Your task to perform on an android device: find photos in the google photos app Image 0: 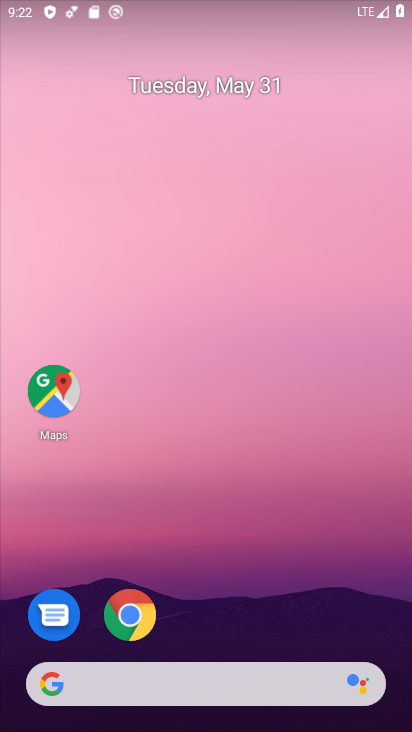
Step 0: drag from (356, 567) to (399, 104)
Your task to perform on an android device: find photos in the google photos app Image 1: 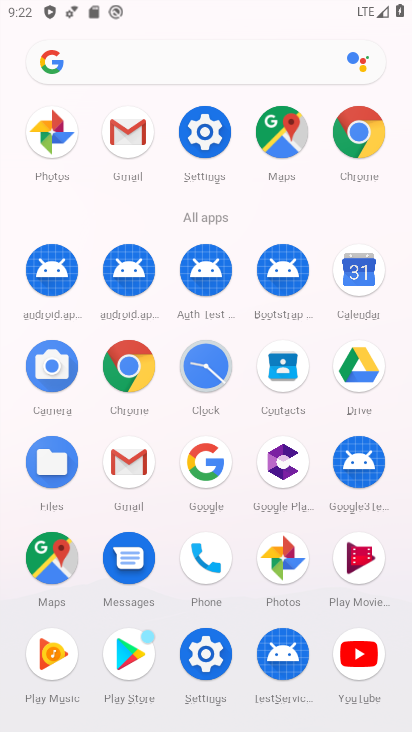
Step 1: click (50, 110)
Your task to perform on an android device: find photos in the google photos app Image 2: 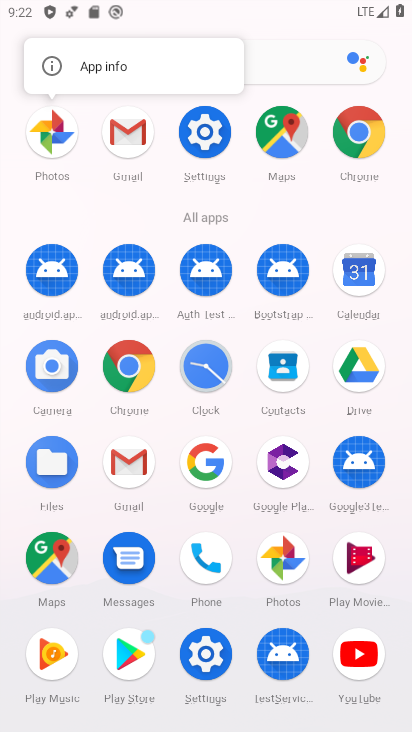
Step 2: click (73, 122)
Your task to perform on an android device: find photos in the google photos app Image 3: 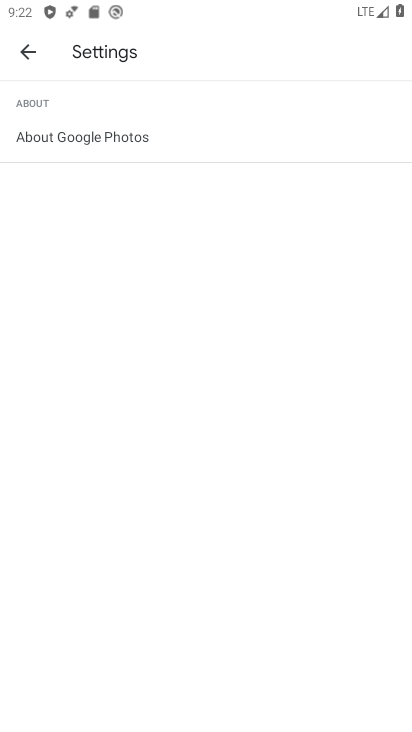
Step 3: click (13, 58)
Your task to perform on an android device: find photos in the google photos app Image 4: 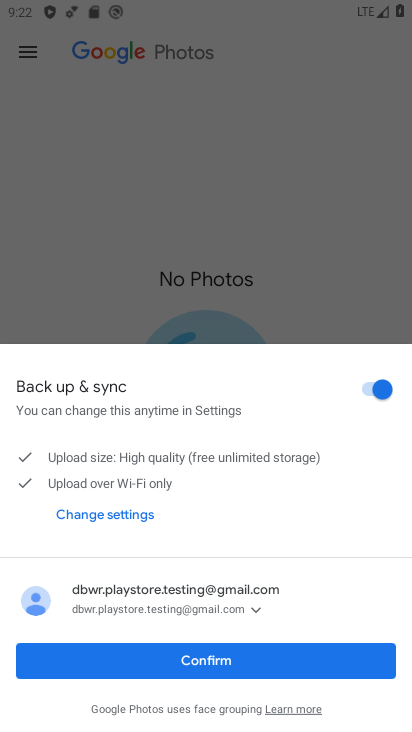
Step 4: click (175, 658)
Your task to perform on an android device: find photos in the google photos app Image 5: 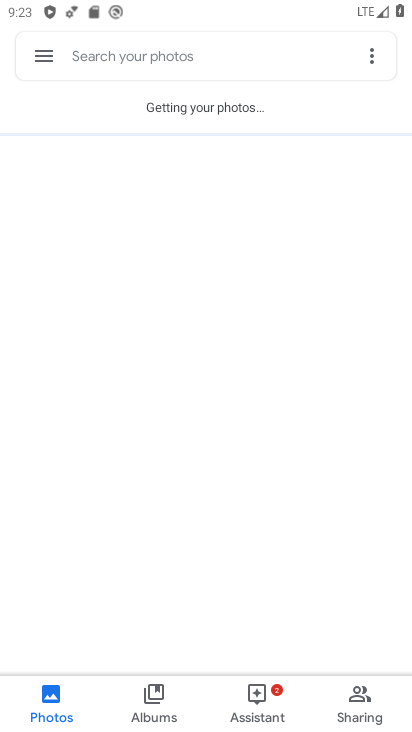
Step 5: click (142, 292)
Your task to perform on an android device: find photos in the google photos app Image 6: 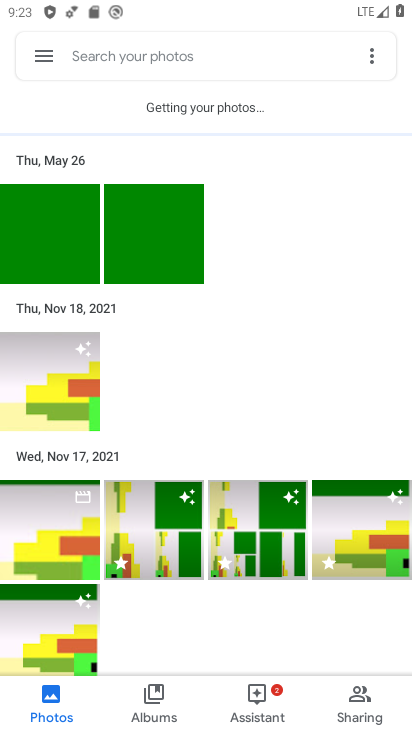
Step 6: click (154, 548)
Your task to perform on an android device: find photos in the google photos app Image 7: 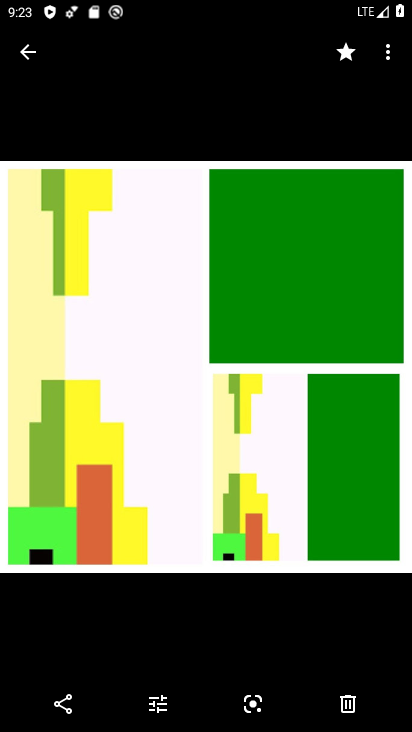
Step 7: task complete